Your task to perform on an android device: Add bose soundsport free to the cart on newegg.com, then select checkout. Image 0: 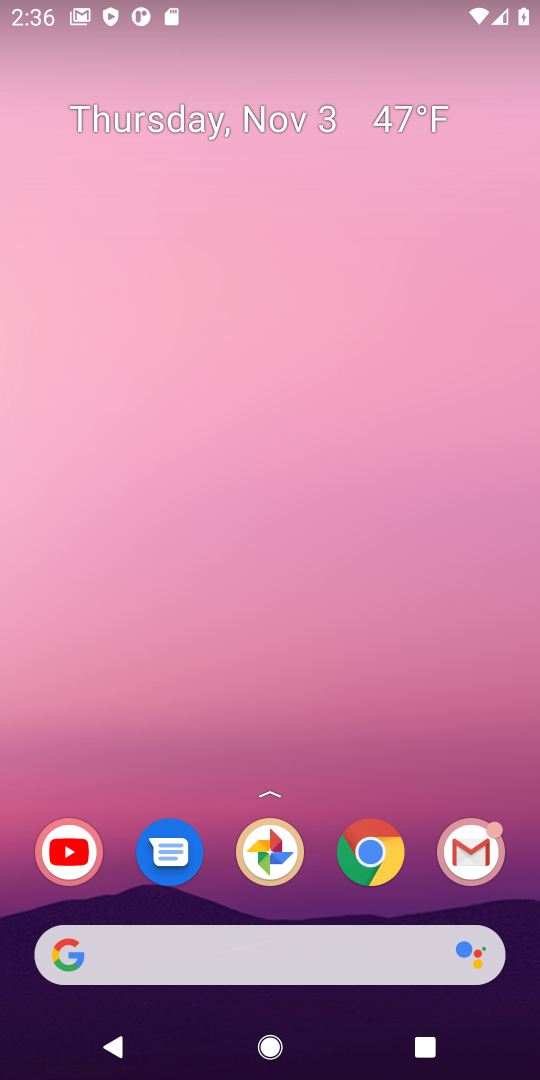
Step 0: click (367, 858)
Your task to perform on an android device: Add bose soundsport free to the cart on newegg.com, then select checkout. Image 1: 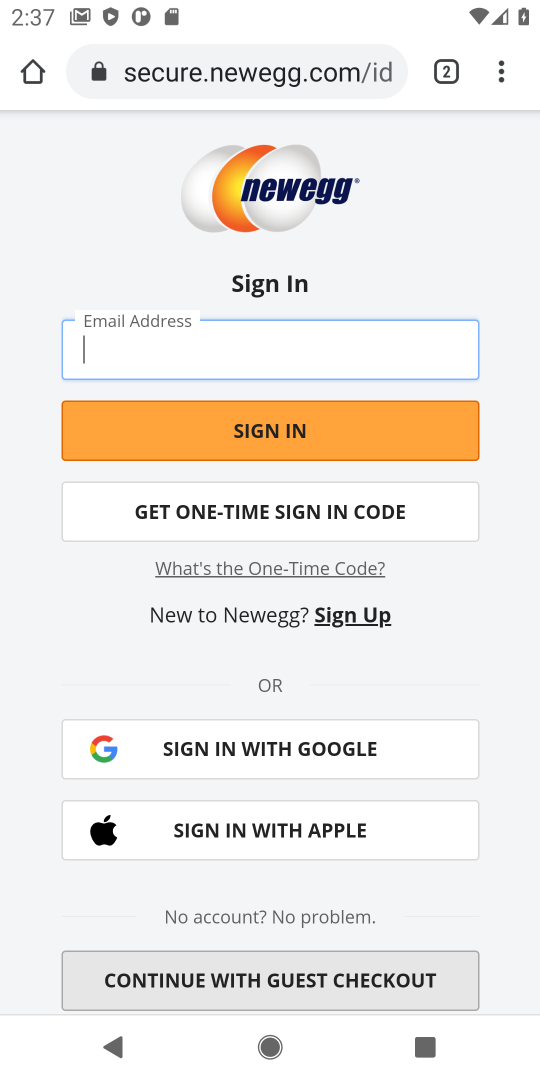
Step 1: press back button
Your task to perform on an android device: Add bose soundsport free to the cart on newegg.com, then select checkout. Image 2: 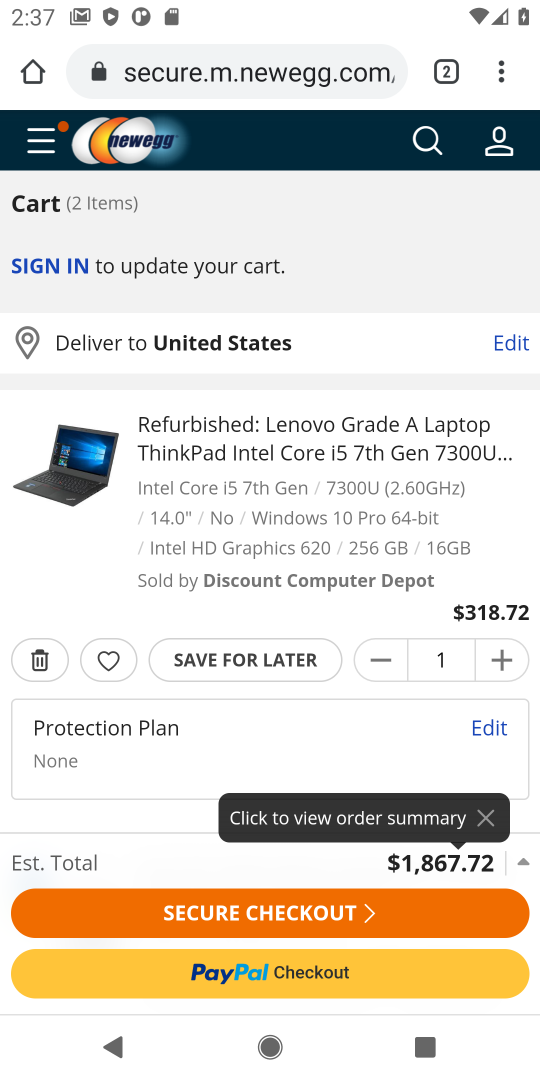
Step 2: click (419, 141)
Your task to perform on an android device: Add bose soundsport free to the cart on newegg.com, then select checkout. Image 3: 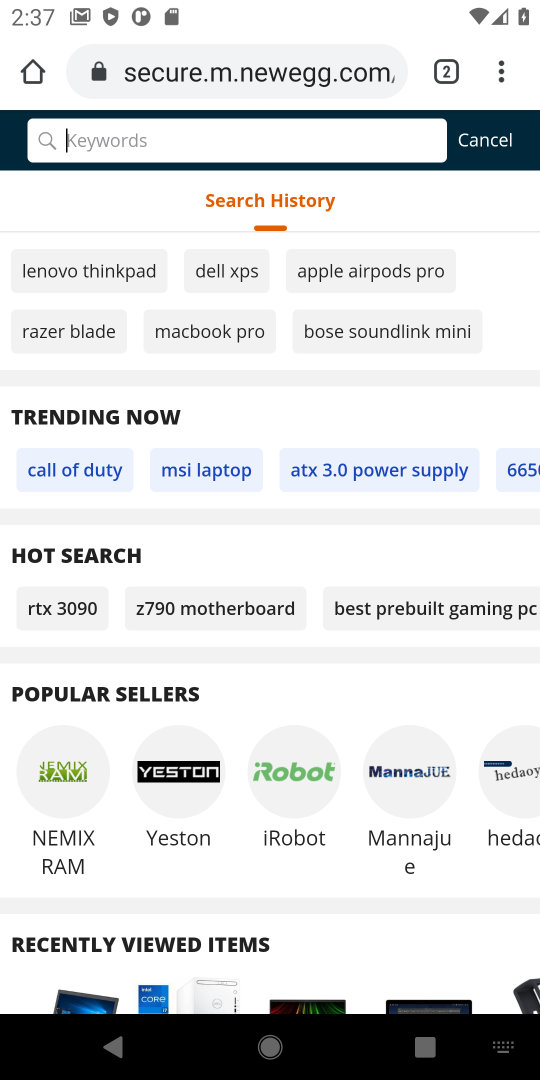
Step 3: type "bose soundsport free"
Your task to perform on an android device: Add bose soundsport free to the cart on newegg.com, then select checkout. Image 4: 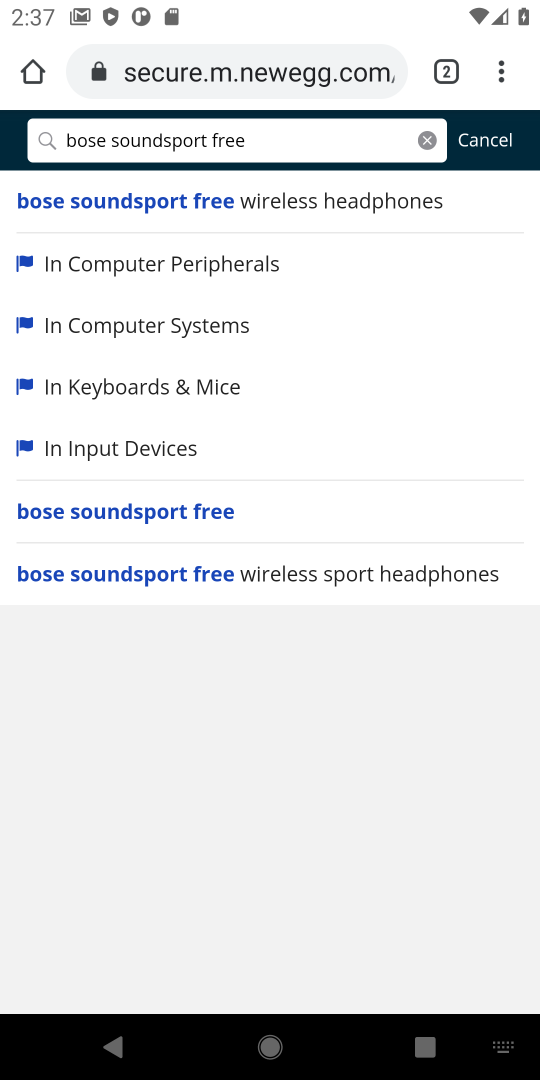
Step 4: click (113, 523)
Your task to perform on an android device: Add bose soundsport free to the cart on newegg.com, then select checkout. Image 5: 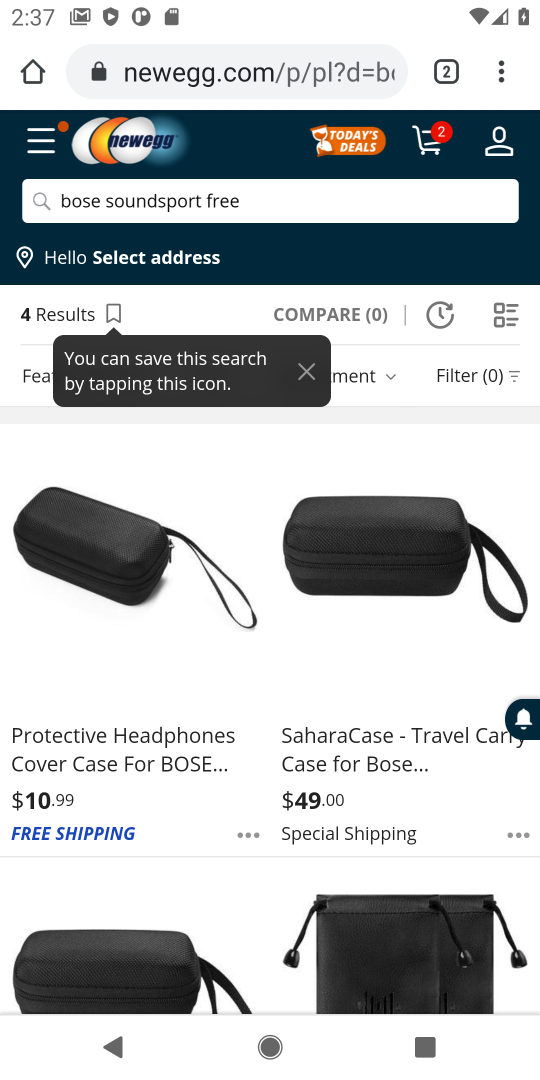
Step 5: drag from (227, 842) to (209, 535)
Your task to perform on an android device: Add bose soundsport free to the cart on newegg.com, then select checkout. Image 6: 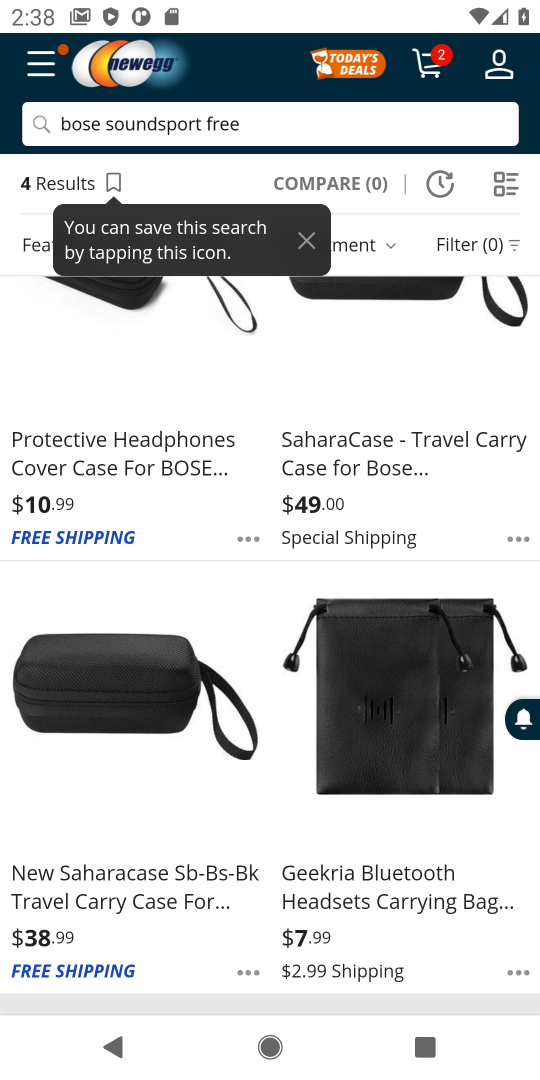
Step 6: drag from (210, 556) to (218, 957)
Your task to perform on an android device: Add bose soundsport free to the cart on newegg.com, then select checkout. Image 7: 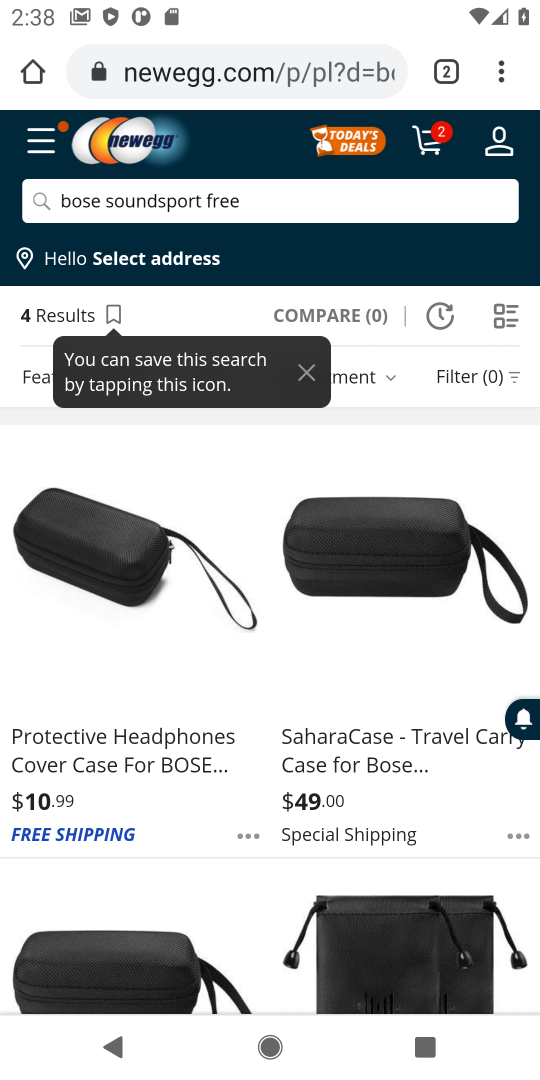
Step 7: drag from (105, 601) to (126, 838)
Your task to perform on an android device: Add bose soundsport free to the cart on newegg.com, then select checkout. Image 8: 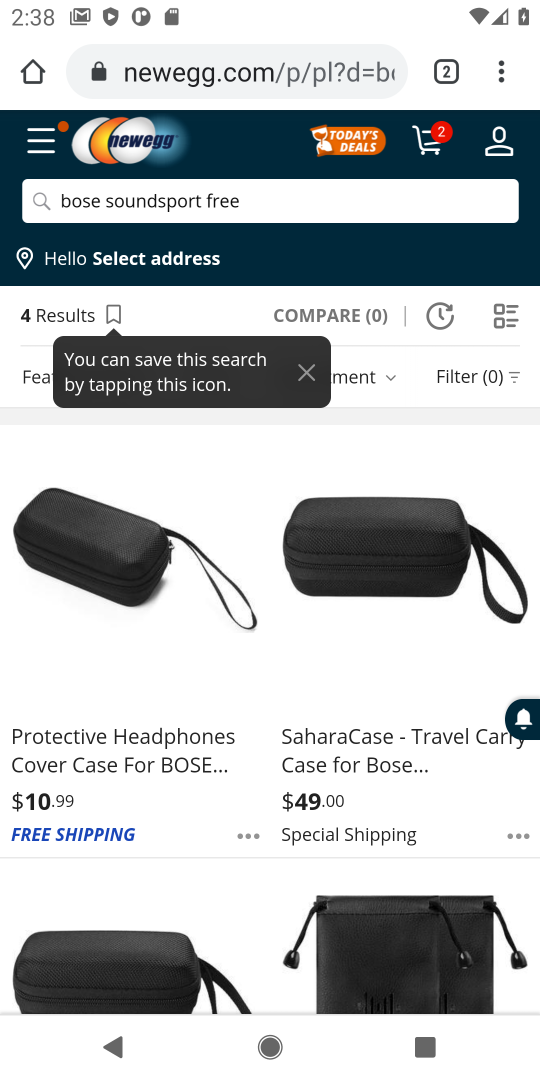
Step 8: click (113, 568)
Your task to perform on an android device: Add bose soundsport free to the cart on newegg.com, then select checkout. Image 9: 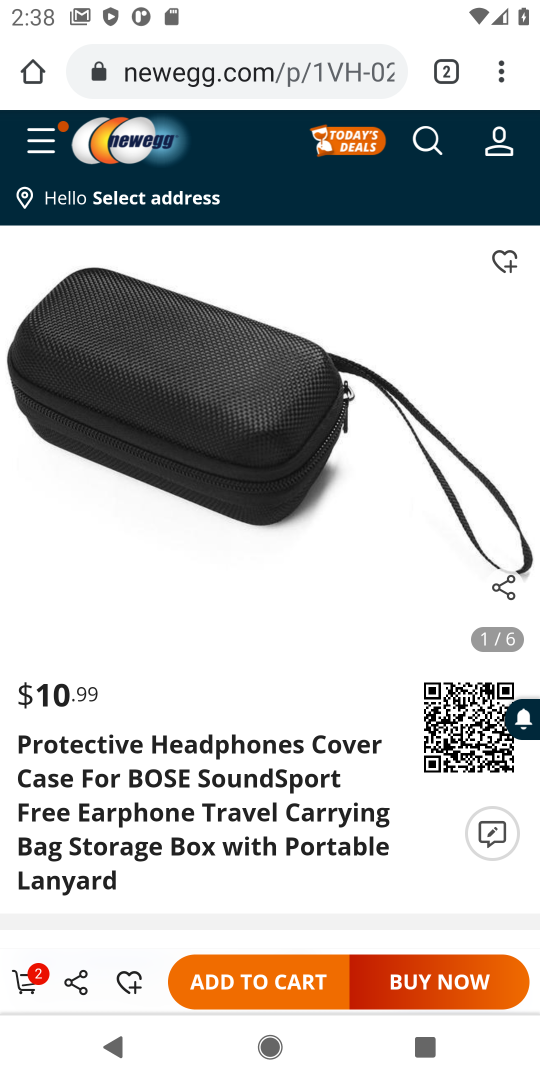
Step 9: click (268, 974)
Your task to perform on an android device: Add bose soundsport free to the cart on newegg.com, then select checkout. Image 10: 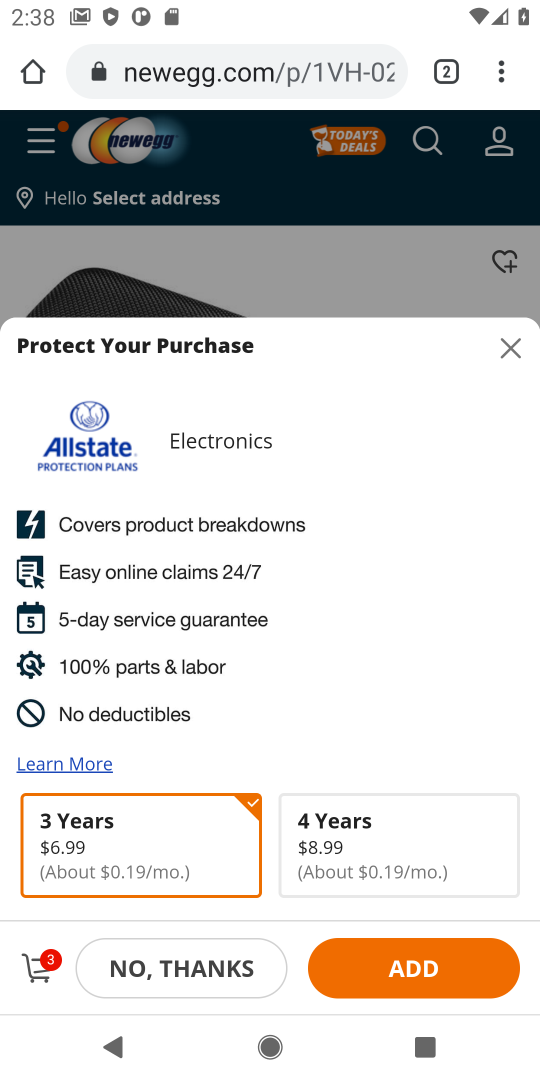
Step 10: click (41, 975)
Your task to perform on an android device: Add bose soundsport free to the cart on newegg.com, then select checkout. Image 11: 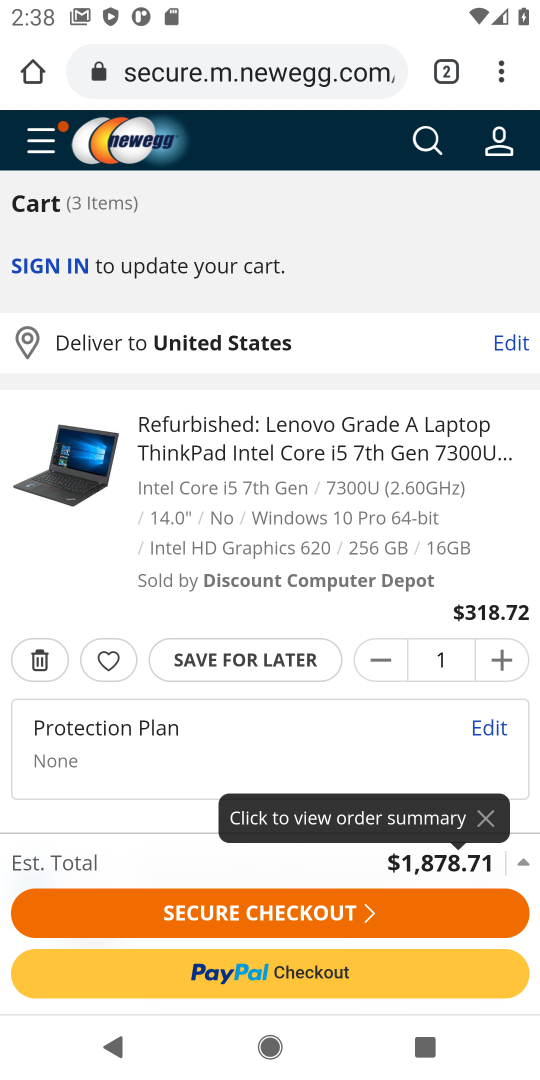
Step 11: click (239, 911)
Your task to perform on an android device: Add bose soundsport free to the cart on newegg.com, then select checkout. Image 12: 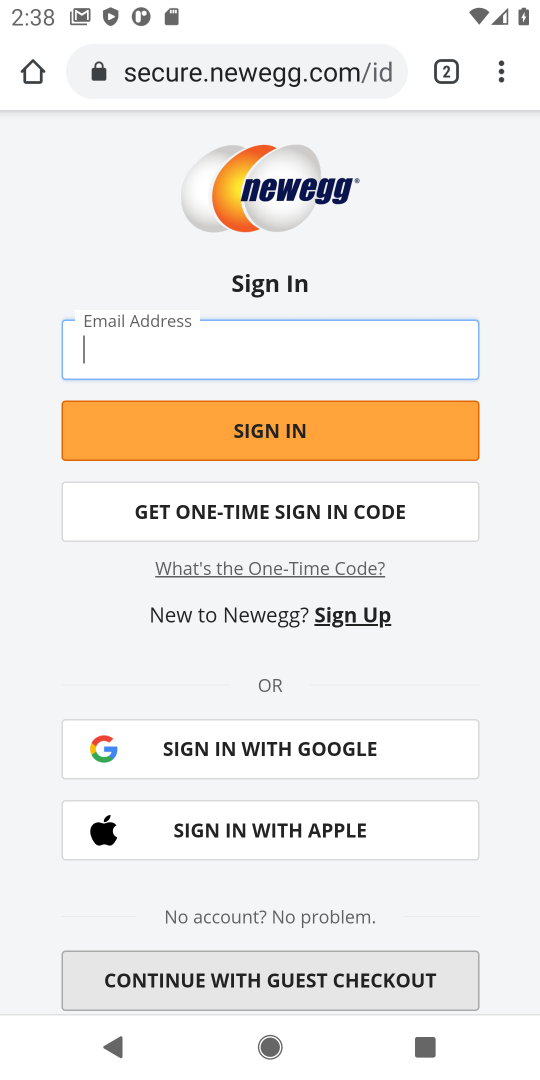
Step 12: task complete